Your task to perform on an android device: Go to wifi settings Image 0: 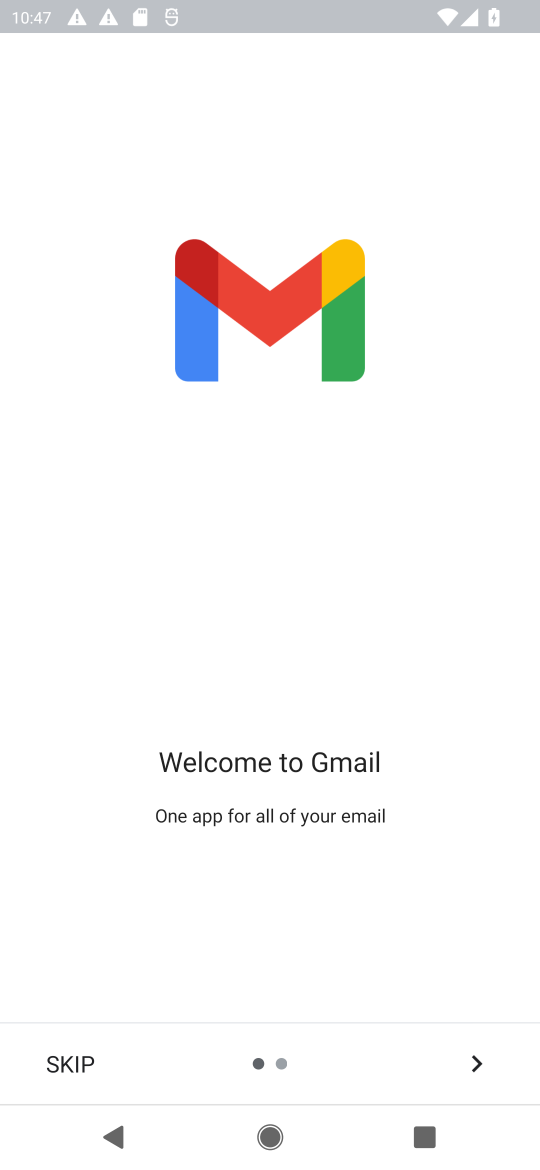
Step 0: press home button
Your task to perform on an android device: Go to wifi settings Image 1: 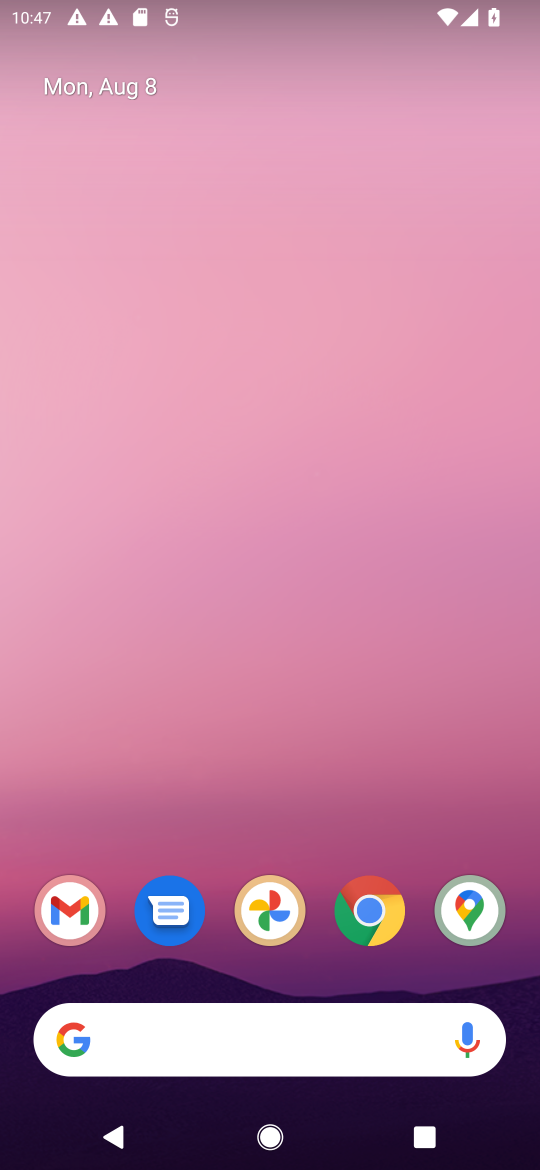
Step 1: drag from (299, 1006) to (211, 92)
Your task to perform on an android device: Go to wifi settings Image 2: 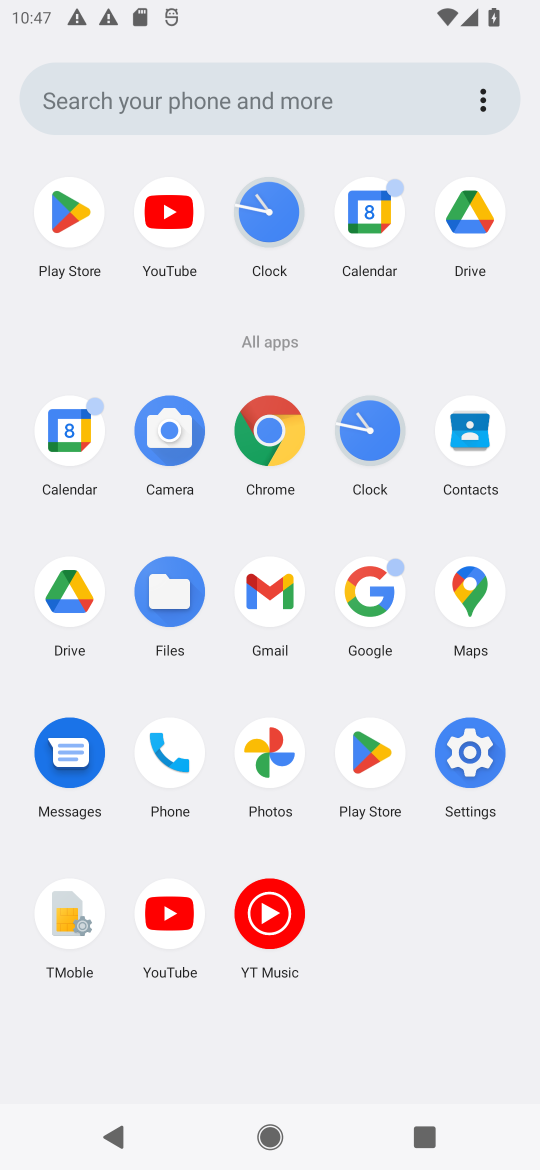
Step 2: click (465, 772)
Your task to perform on an android device: Go to wifi settings Image 3: 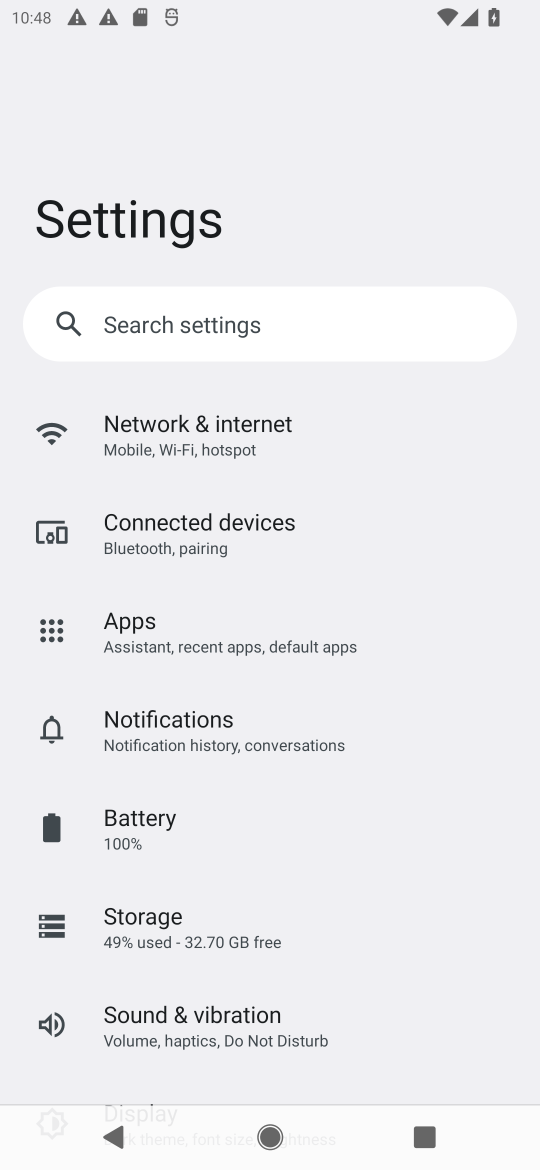
Step 3: click (188, 437)
Your task to perform on an android device: Go to wifi settings Image 4: 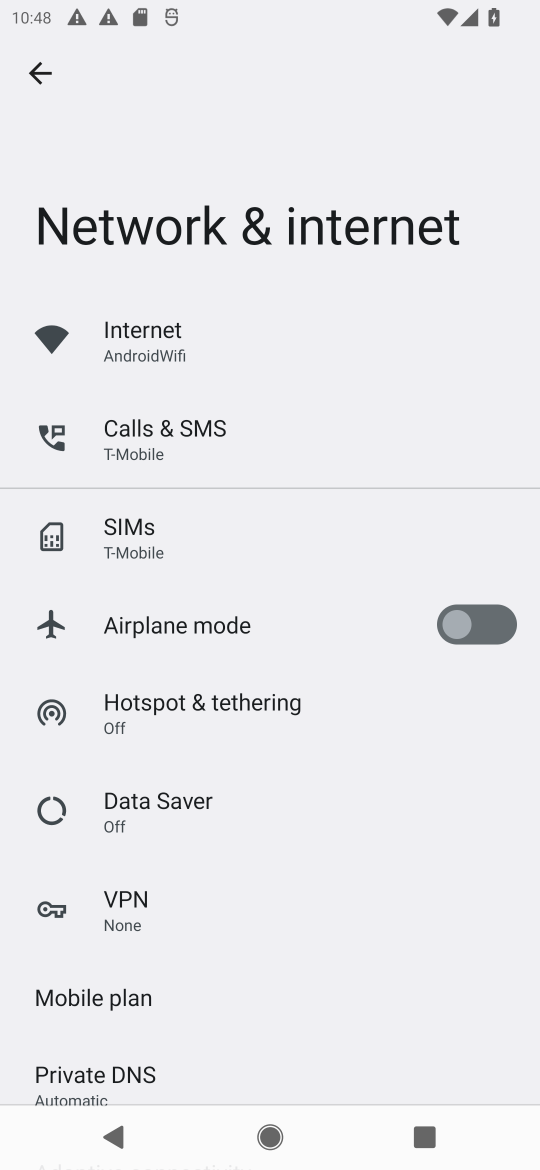
Step 4: click (114, 324)
Your task to perform on an android device: Go to wifi settings Image 5: 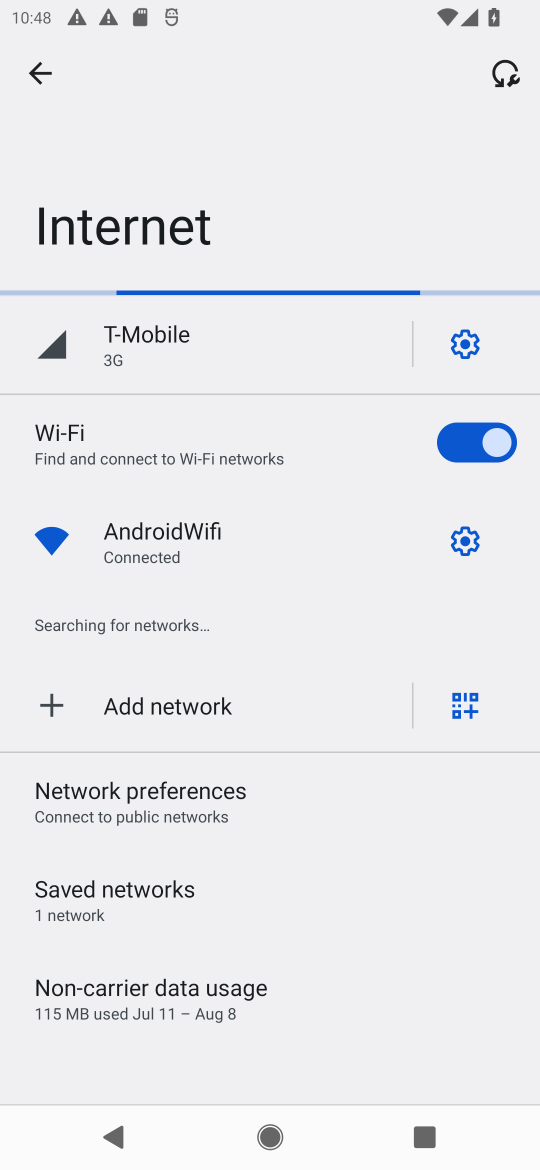
Step 5: click (463, 549)
Your task to perform on an android device: Go to wifi settings Image 6: 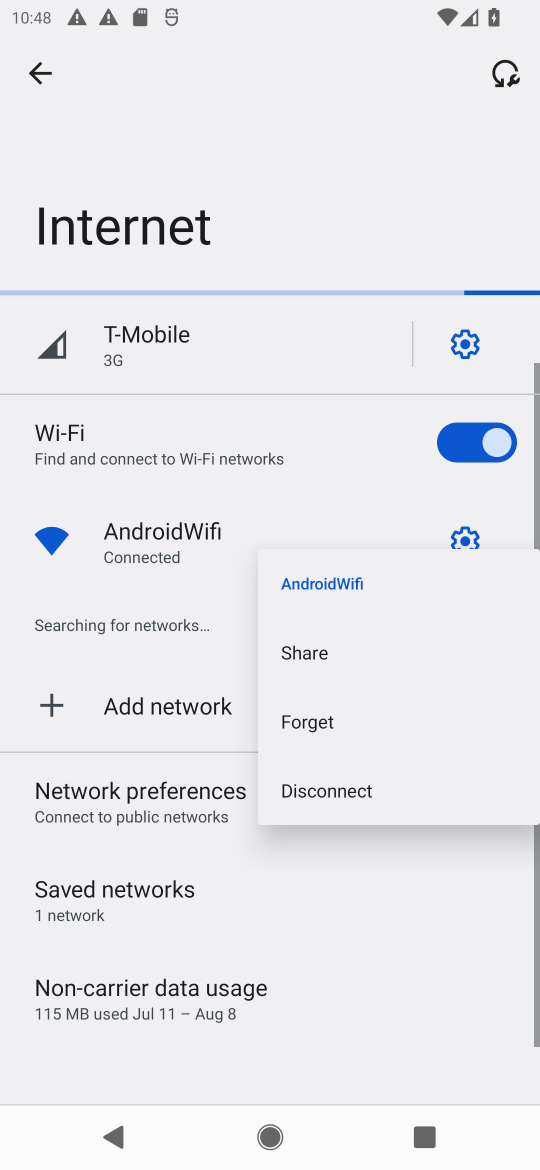
Step 6: click (334, 593)
Your task to perform on an android device: Go to wifi settings Image 7: 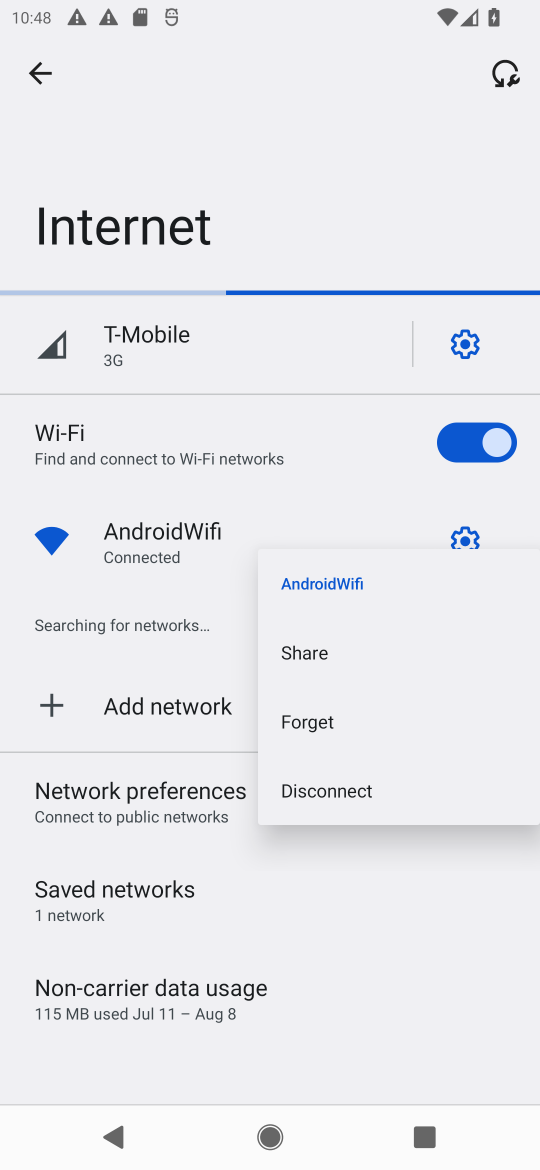
Step 7: task complete